Your task to perform on an android device: see sites visited before in the chrome app Image 0: 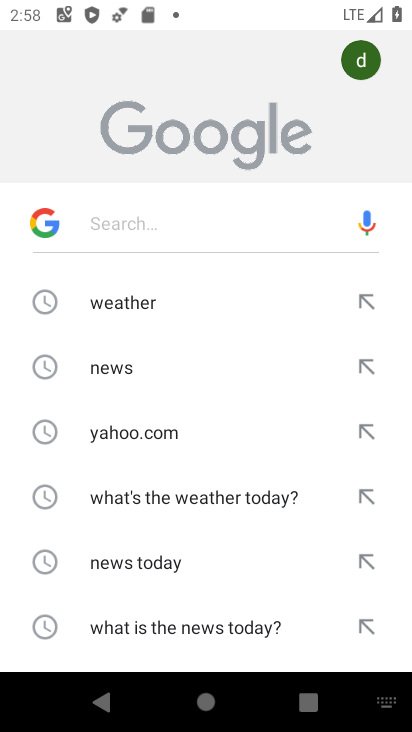
Step 0: press home button
Your task to perform on an android device: see sites visited before in the chrome app Image 1: 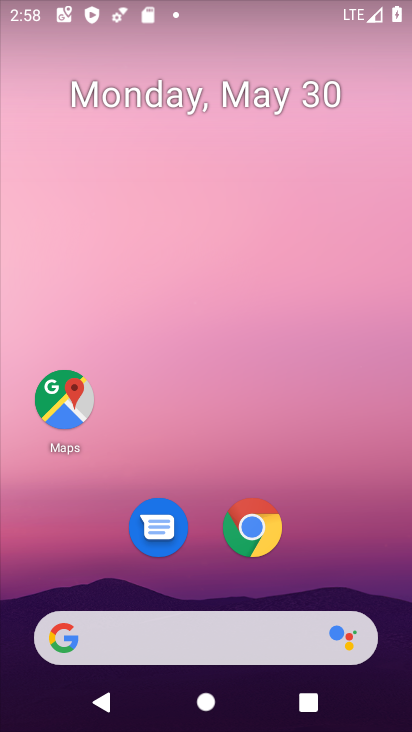
Step 1: click (259, 527)
Your task to perform on an android device: see sites visited before in the chrome app Image 2: 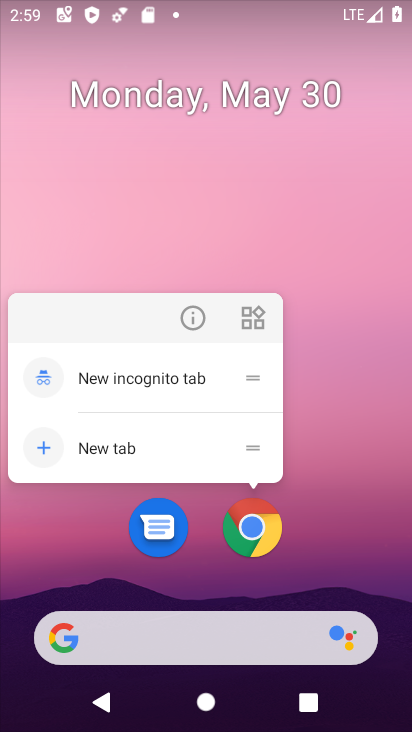
Step 2: click (276, 526)
Your task to perform on an android device: see sites visited before in the chrome app Image 3: 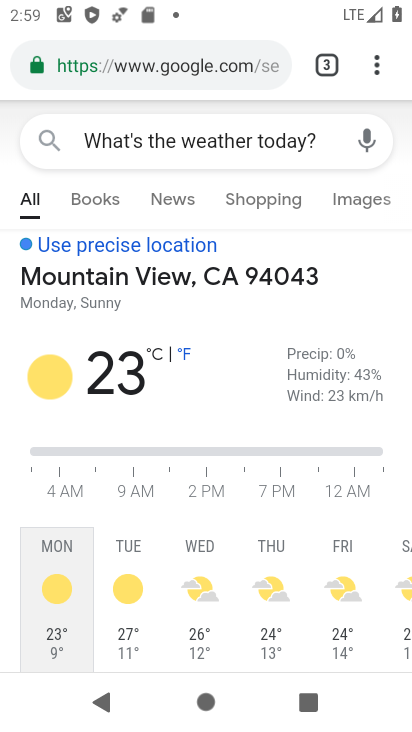
Step 3: task complete